Your task to perform on an android device: Toggle the flashlight Image 0: 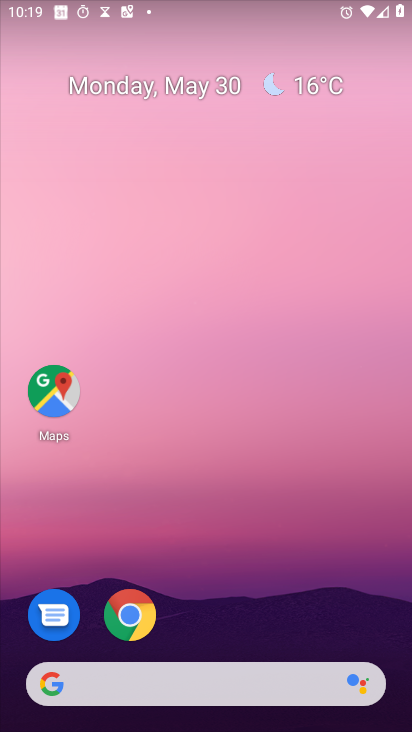
Step 0: drag from (277, 600) to (207, 83)
Your task to perform on an android device: Toggle the flashlight Image 1: 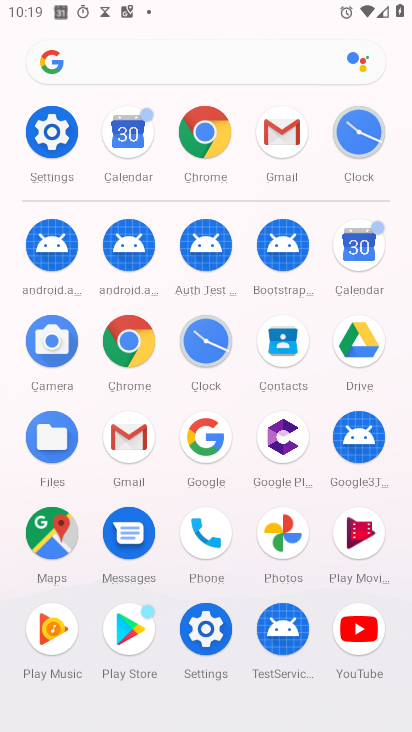
Step 1: click (65, 128)
Your task to perform on an android device: Toggle the flashlight Image 2: 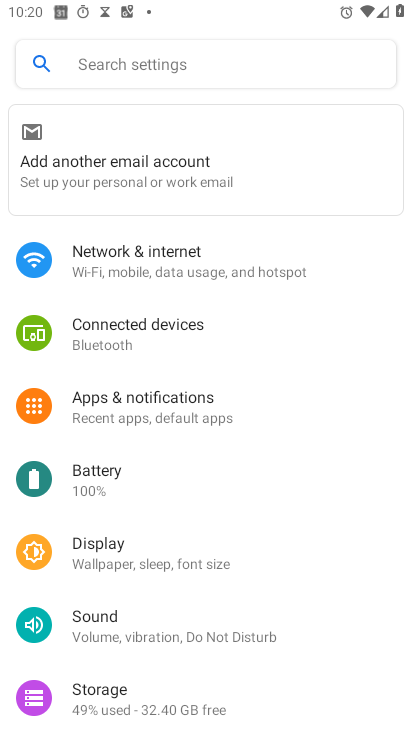
Step 2: task complete